Your task to perform on an android device: Open Android settings Image 0: 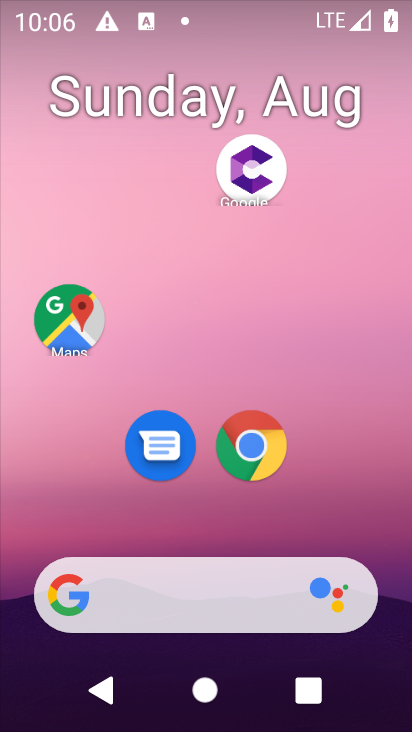
Step 0: press home button
Your task to perform on an android device: Open Android settings Image 1: 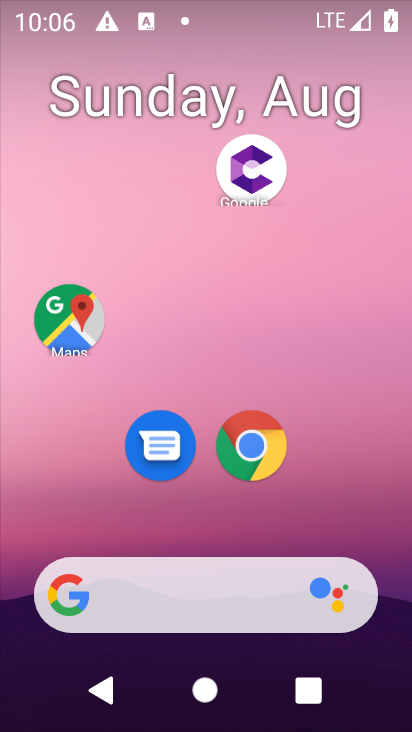
Step 1: drag from (338, 291) to (354, 34)
Your task to perform on an android device: Open Android settings Image 2: 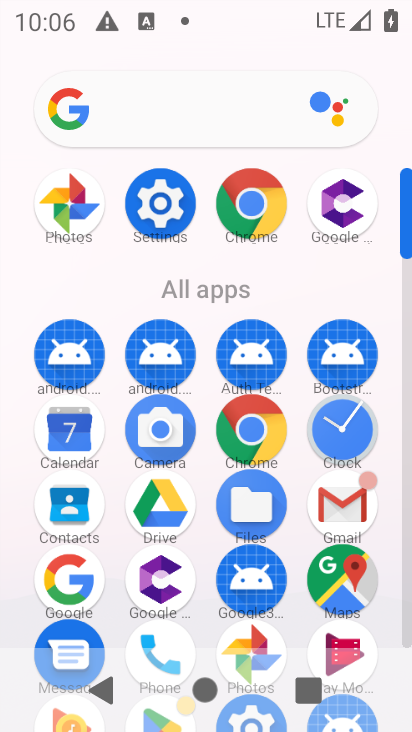
Step 2: click (158, 196)
Your task to perform on an android device: Open Android settings Image 3: 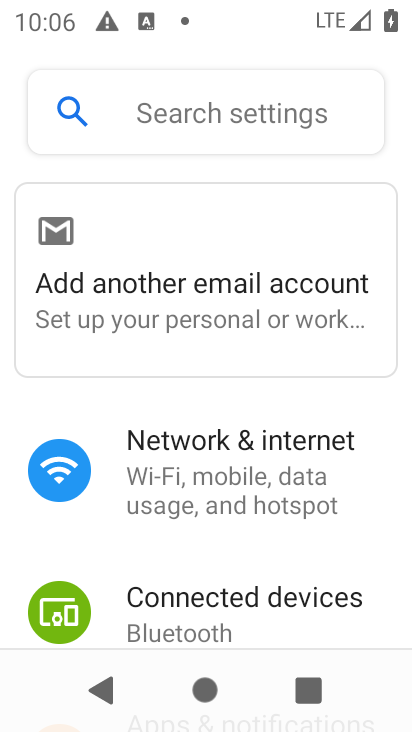
Step 3: drag from (220, 574) to (242, 139)
Your task to perform on an android device: Open Android settings Image 4: 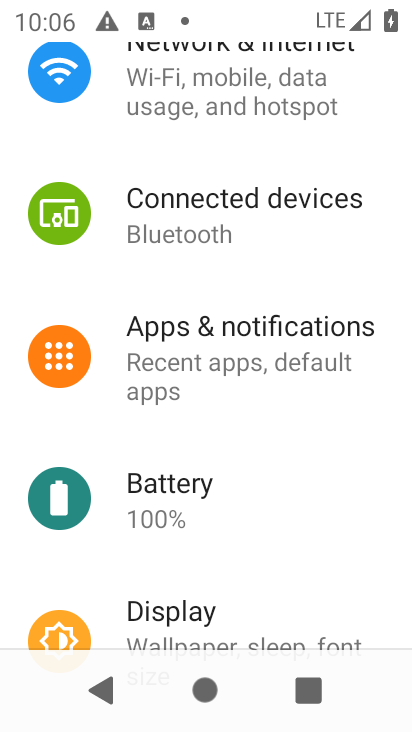
Step 4: drag from (267, 609) to (281, 95)
Your task to perform on an android device: Open Android settings Image 5: 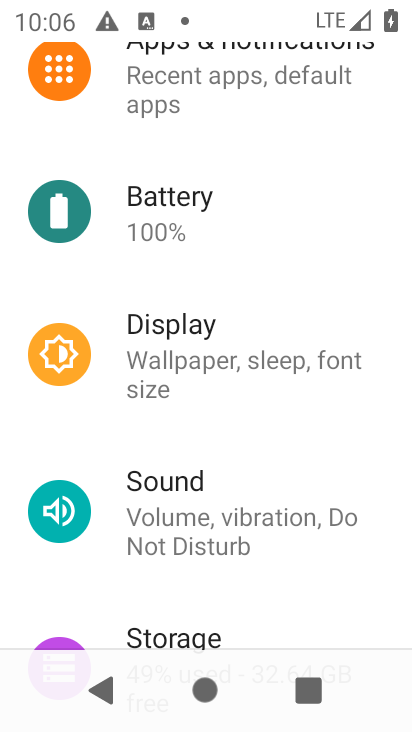
Step 5: drag from (263, 608) to (280, 122)
Your task to perform on an android device: Open Android settings Image 6: 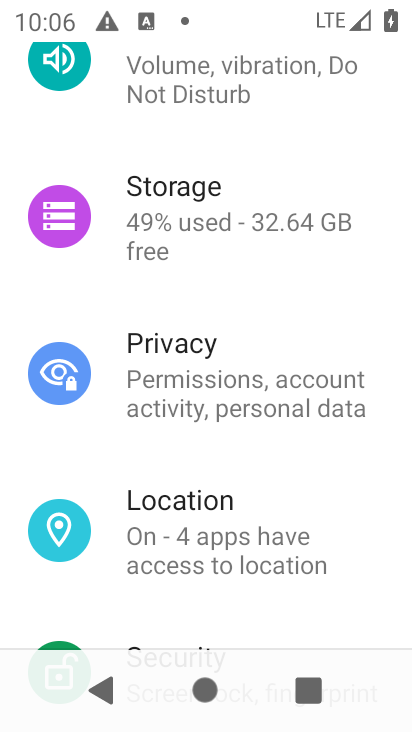
Step 6: drag from (241, 597) to (265, 173)
Your task to perform on an android device: Open Android settings Image 7: 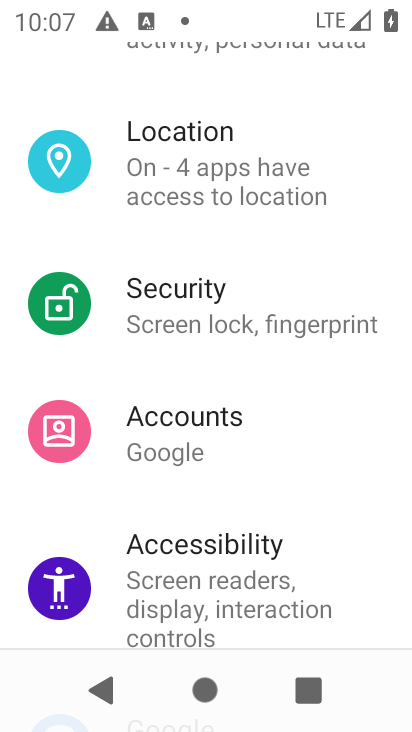
Step 7: drag from (261, 591) to (298, 161)
Your task to perform on an android device: Open Android settings Image 8: 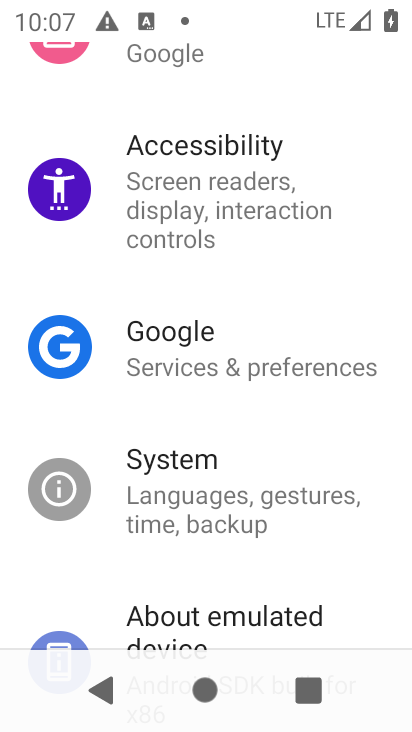
Step 8: click (234, 616)
Your task to perform on an android device: Open Android settings Image 9: 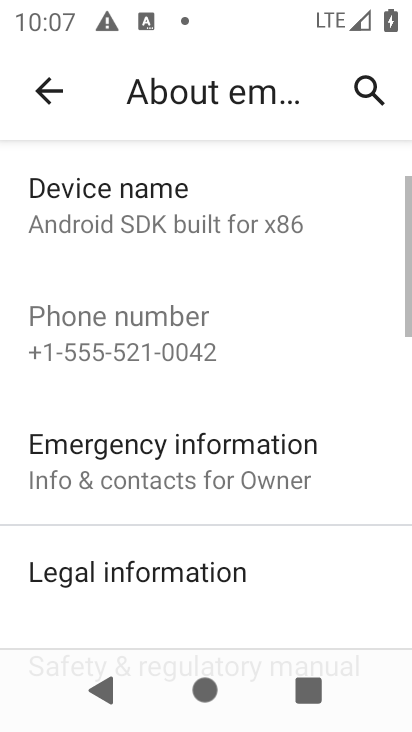
Step 9: drag from (244, 559) to (268, 138)
Your task to perform on an android device: Open Android settings Image 10: 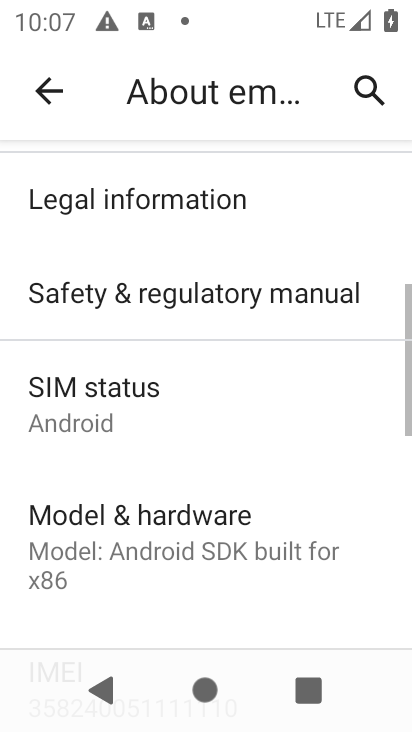
Step 10: drag from (206, 581) to (227, 154)
Your task to perform on an android device: Open Android settings Image 11: 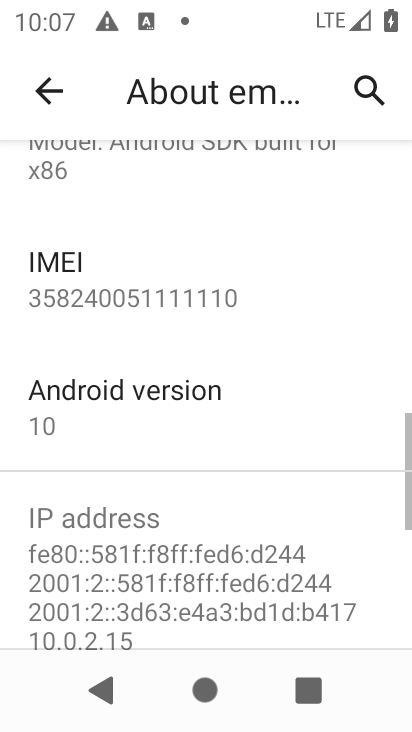
Step 11: click (125, 408)
Your task to perform on an android device: Open Android settings Image 12: 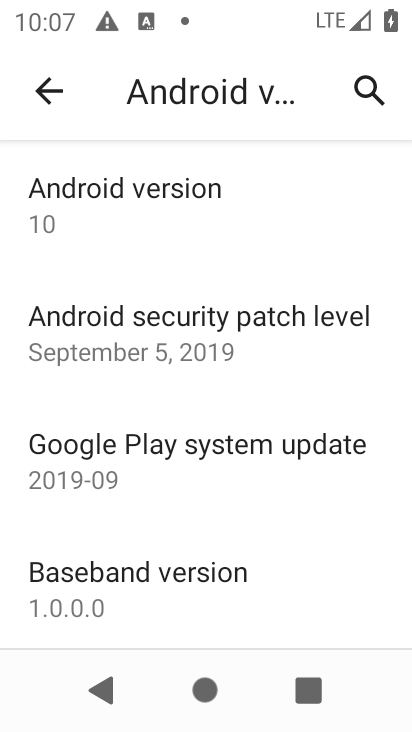
Step 12: task complete